Your task to perform on an android device: toggle data saver in the chrome app Image 0: 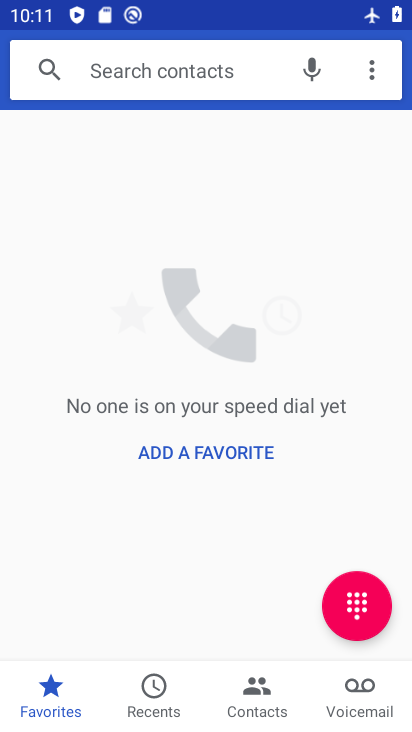
Step 0: press back button
Your task to perform on an android device: toggle data saver in the chrome app Image 1: 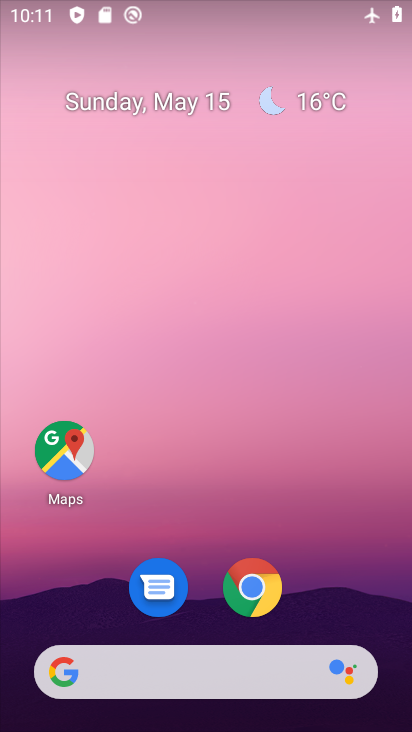
Step 1: click (254, 583)
Your task to perform on an android device: toggle data saver in the chrome app Image 2: 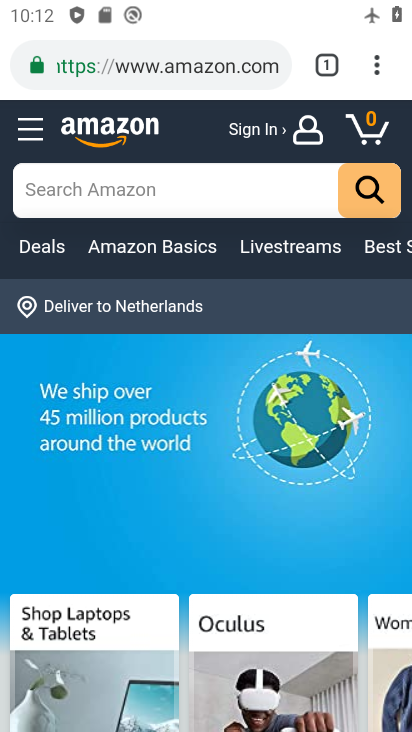
Step 2: drag from (378, 59) to (210, 625)
Your task to perform on an android device: toggle data saver in the chrome app Image 3: 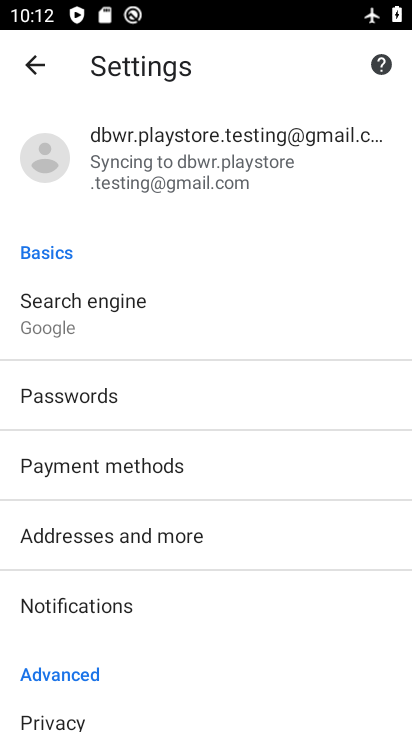
Step 3: drag from (258, 527) to (275, 145)
Your task to perform on an android device: toggle data saver in the chrome app Image 4: 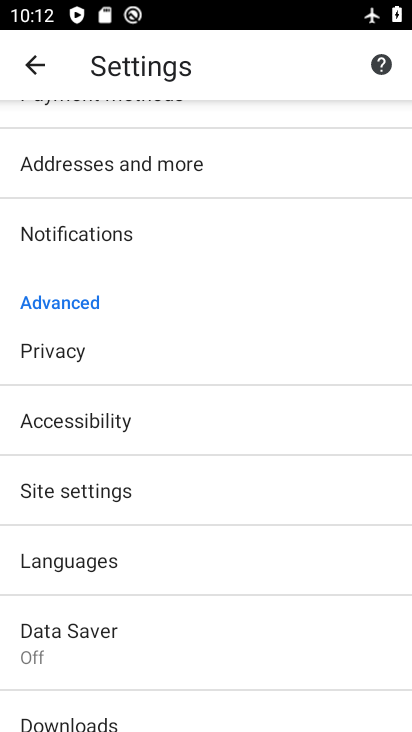
Step 4: click (117, 635)
Your task to perform on an android device: toggle data saver in the chrome app Image 5: 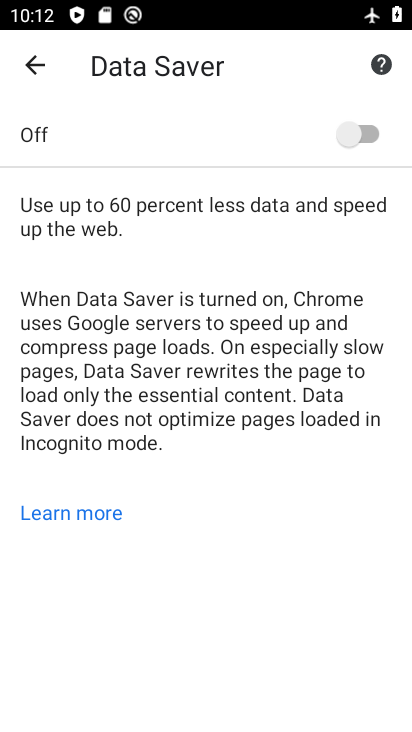
Step 5: click (357, 128)
Your task to perform on an android device: toggle data saver in the chrome app Image 6: 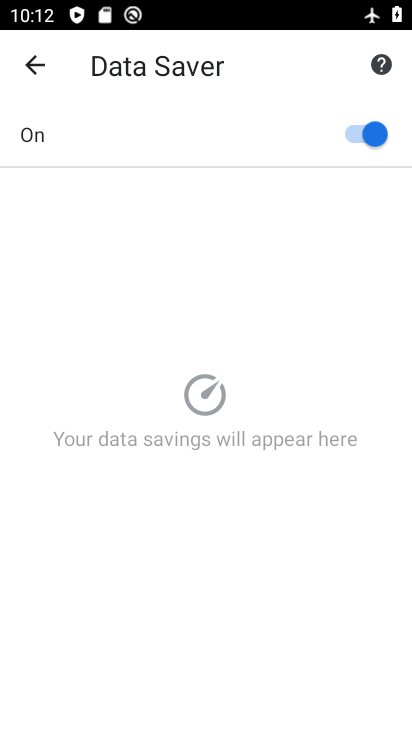
Step 6: task complete